Your task to perform on an android device: Go to Google maps Image 0: 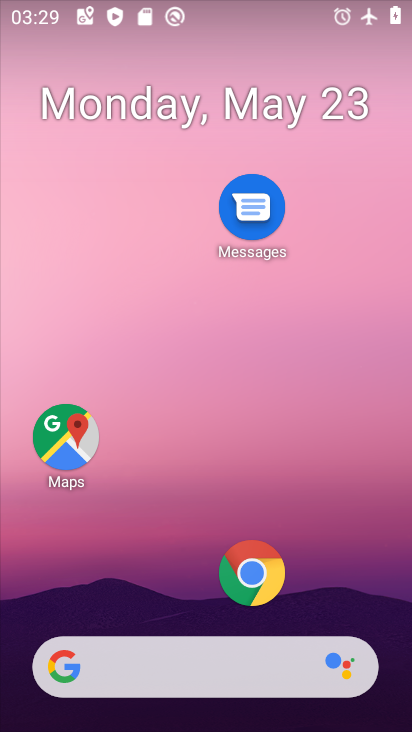
Step 0: drag from (219, 623) to (255, 9)
Your task to perform on an android device: Go to Google maps Image 1: 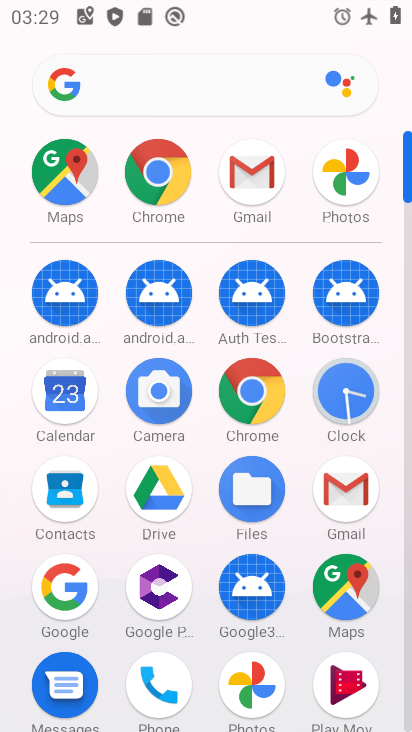
Step 1: click (352, 616)
Your task to perform on an android device: Go to Google maps Image 2: 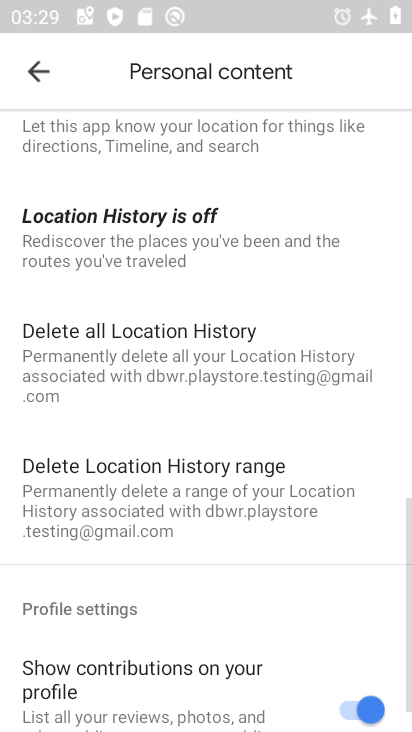
Step 2: task complete